Your task to perform on an android device: Open the web browser Image 0: 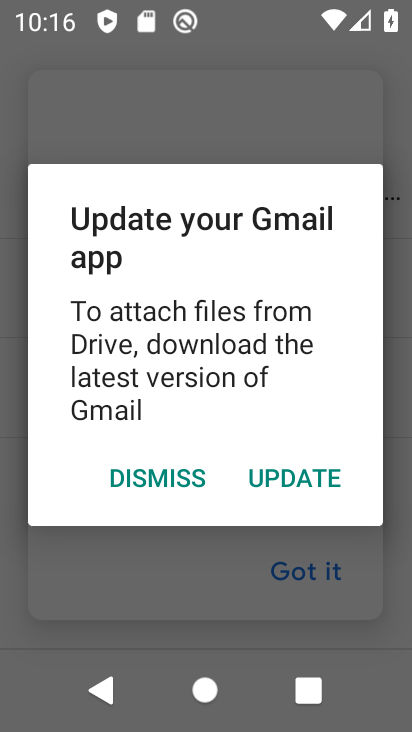
Step 0: press home button
Your task to perform on an android device: Open the web browser Image 1: 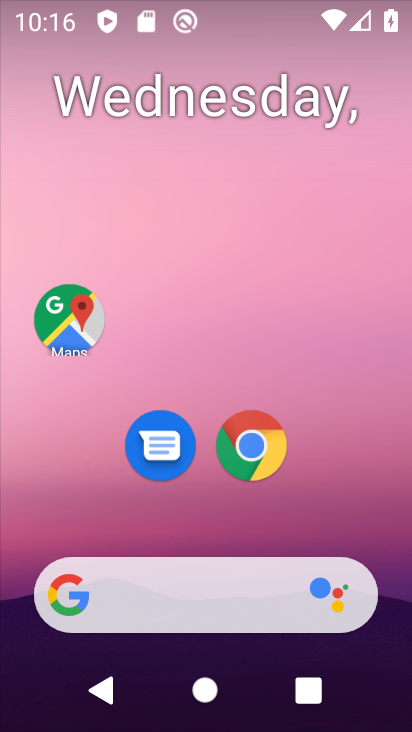
Step 1: click (255, 439)
Your task to perform on an android device: Open the web browser Image 2: 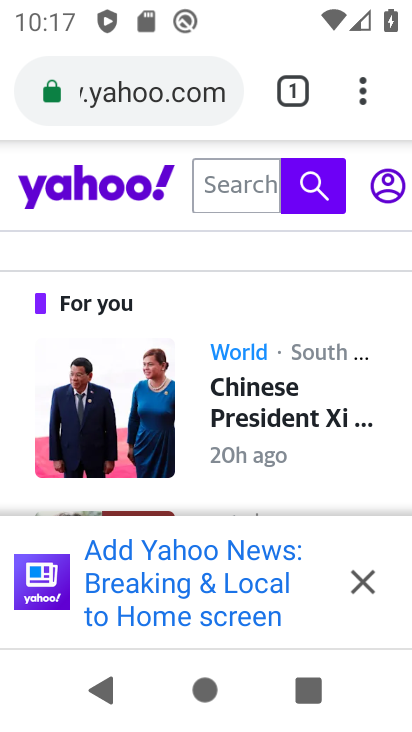
Step 2: task complete